Your task to perform on an android device: set default search engine in the chrome app Image 0: 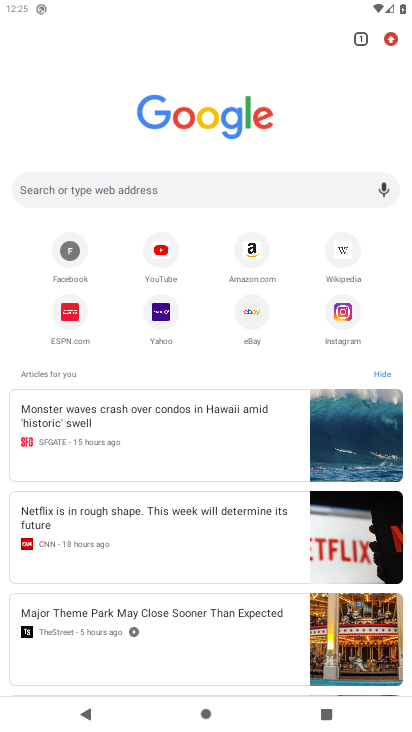
Step 0: click (392, 36)
Your task to perform on an android device: set default search engine in the chrome app Image 1: 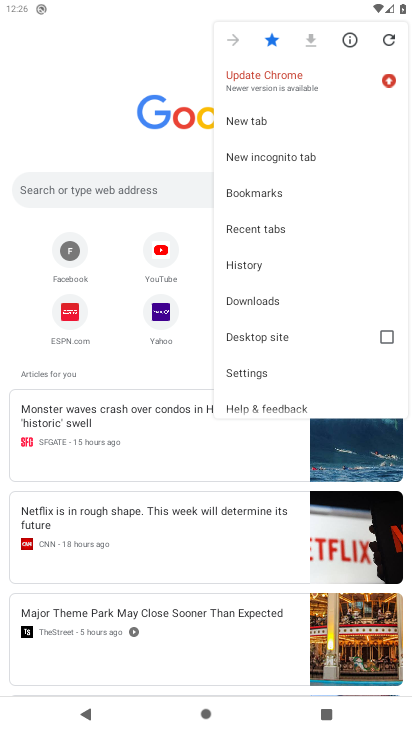
Step 1: click (270, 371)
Your task to perform on an android device: set default search engine in the chrome app Image 2: 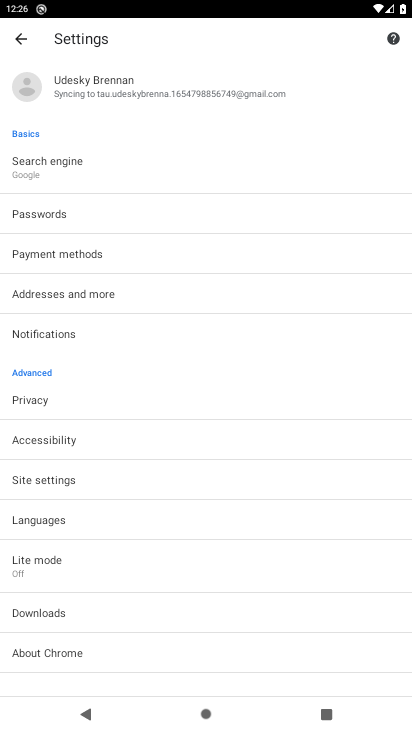
Step 2: click (56, 172)
Your task to perform on an android device: set default search engine in the chrome app Image 3: 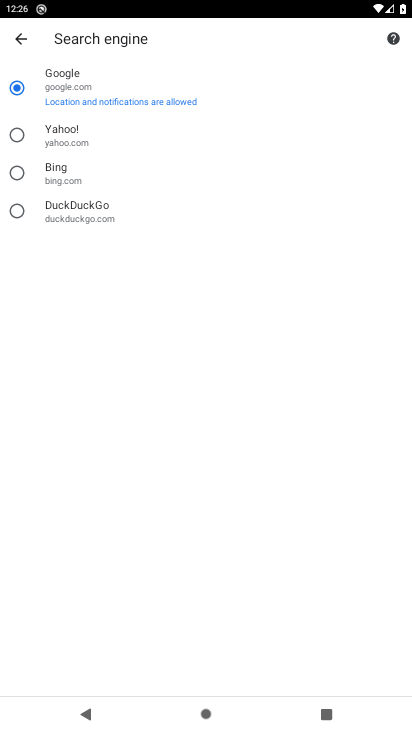
Step 3: click (16, 167)
Your task to perform on an android device: set default search engine in the chrome app Image 4: 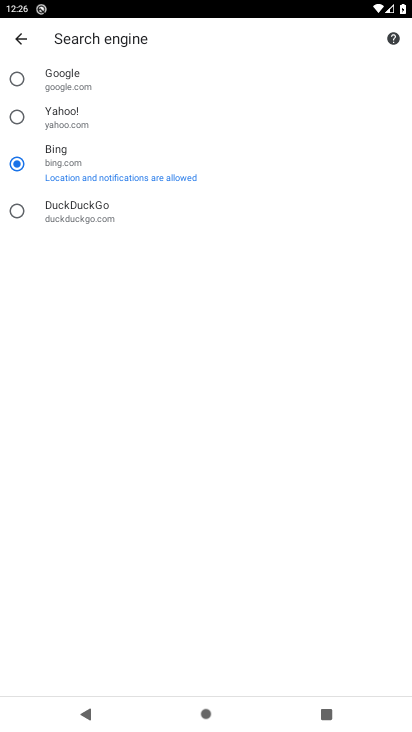
Step 4: task complete